Your task to perform on an android device: change the clock display to analog Image 0: 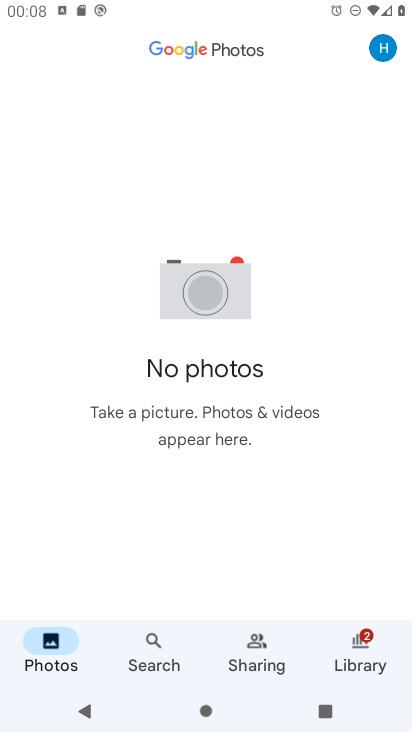
Step 0: press home button
Your task to perform on an android device: change the clock display to analog Image 1: 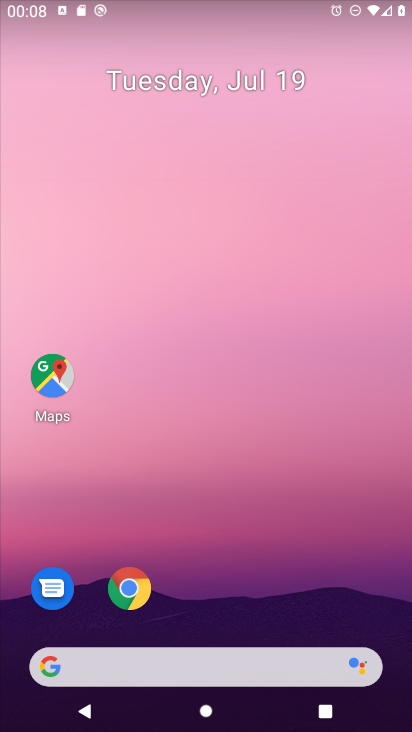
Step 1: drag from (368, 626) to (334, 105)
Your task to perform on an android device: change the clock display to analog Image 2: 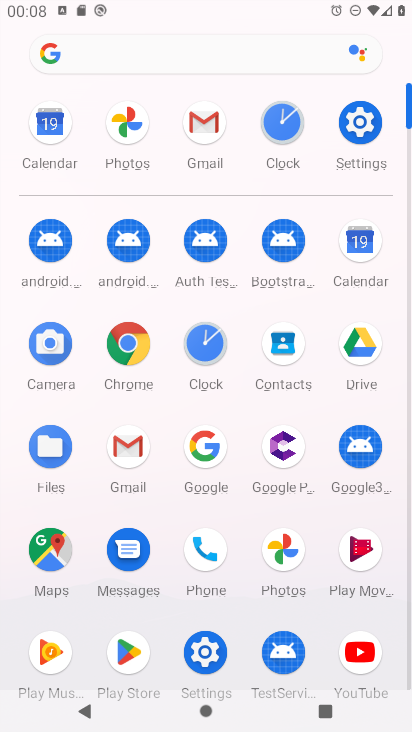
Step 2: click (203, 343)
Your task to perform on an android device: change the clock display to analog Image 3: 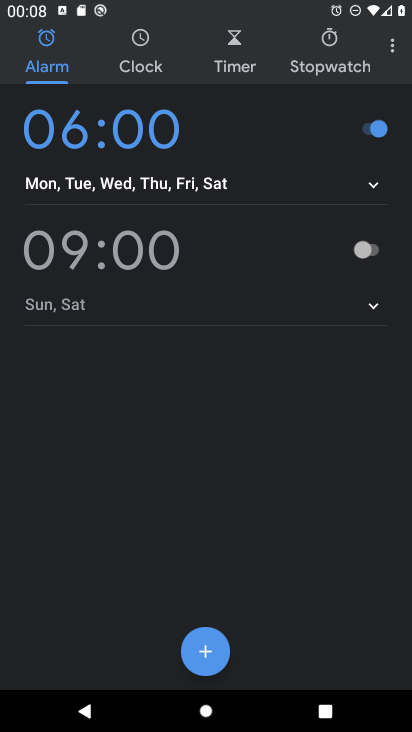
Step 3: click (392, 53)
Your task to perform on an android device: change the clock display to analog Image 4: 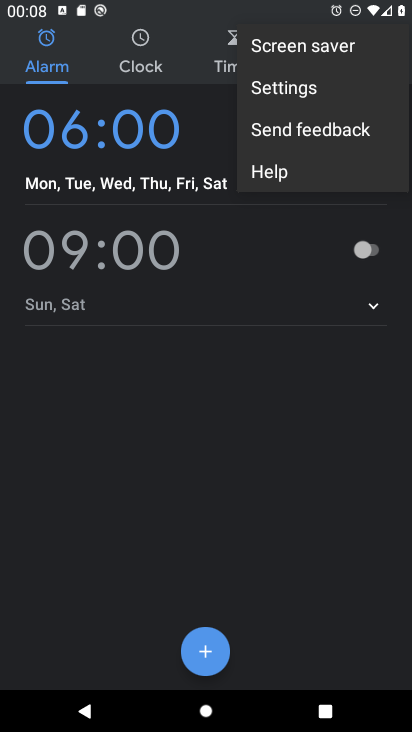
Step 4: click (279, 84)
Your task to perform on an android device: change the clock display to analog Image 5: 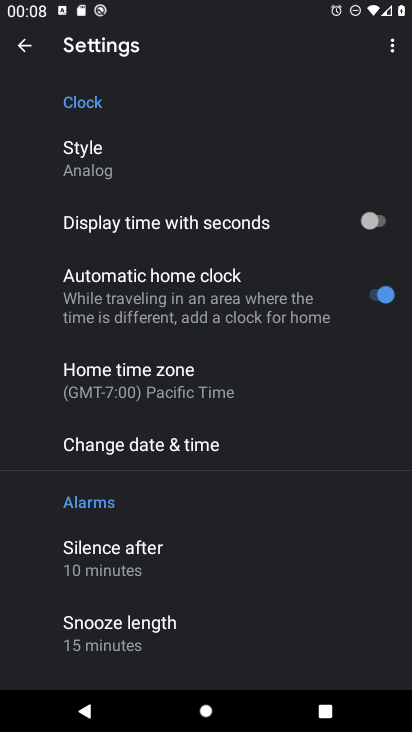
Step 5: task complete